Your task to perform on an android device: Clear the cart on target. Search for "logitech g pro" on target, select the first entry, add it to the cart, then select checkout. Image 0: 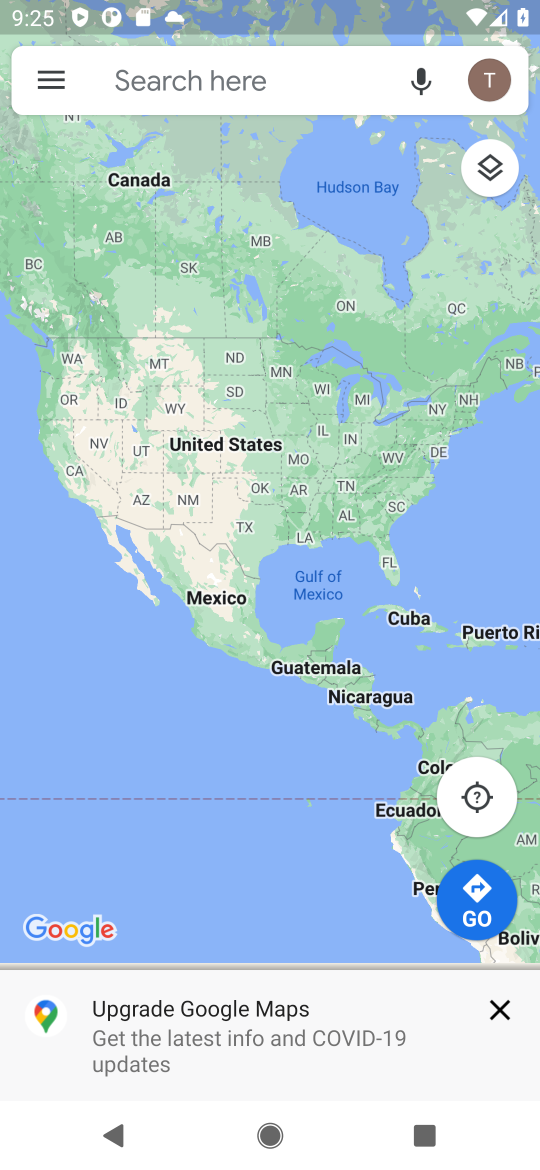
Step 0: press home button
Your task to perform on an android device: Clear the cart on target. Search for "logitech g pro" on target, select the first entry, add it to the cart, then select checkout. Image 1: 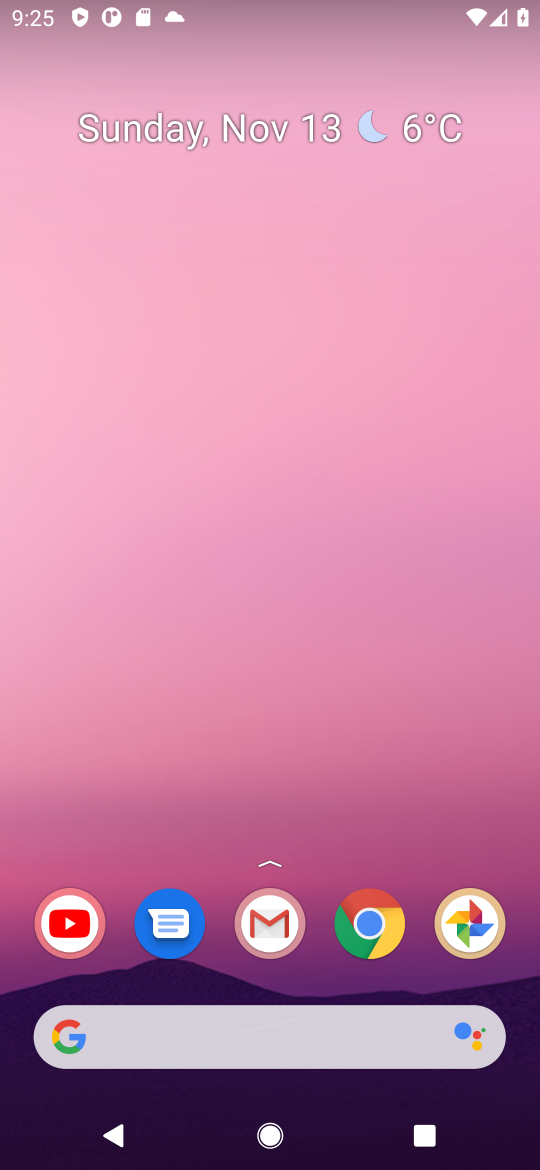
Step 1: click (363, 917)
Your task to perform on an android device: Clear the cart on target. Search for "logitech g pro" on target, select the first entry, add it to the cart, then select checkout. Image 2: 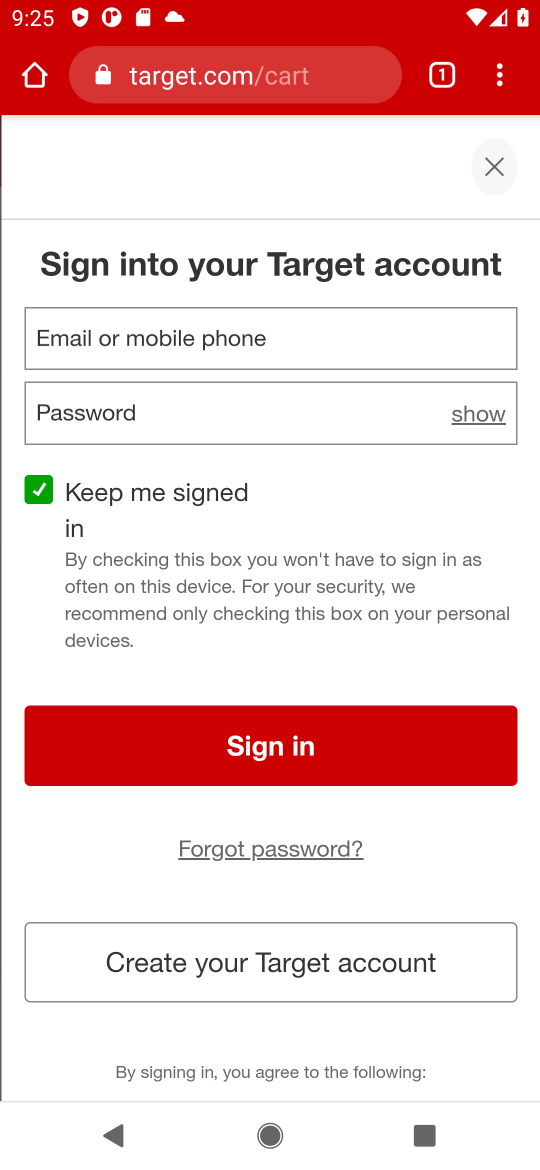
Step 2: click (497, 178)
Your task to perform on an android device: Clear the cart on target. Search for "logitech g pro" on target, select the first entry, add it to the cart, then select checkout. Image 3: 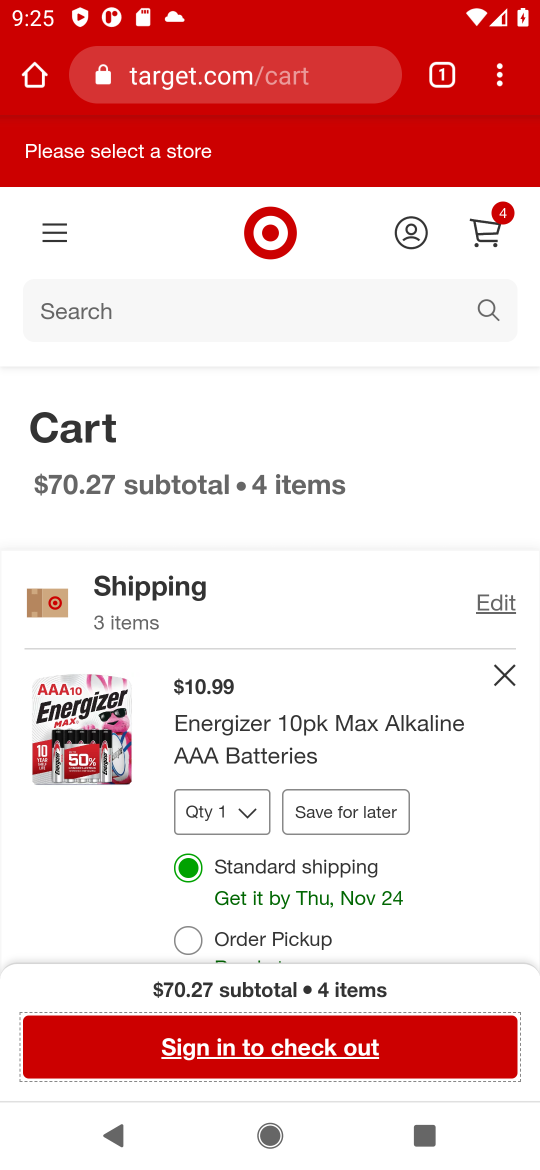
Step 3: click (488, 239)
Your task to perform on an android device: Clear the cart on target. Search for "logitech g pro" on target, select the first entry, add it to the cart, then select checkout. Image 4: 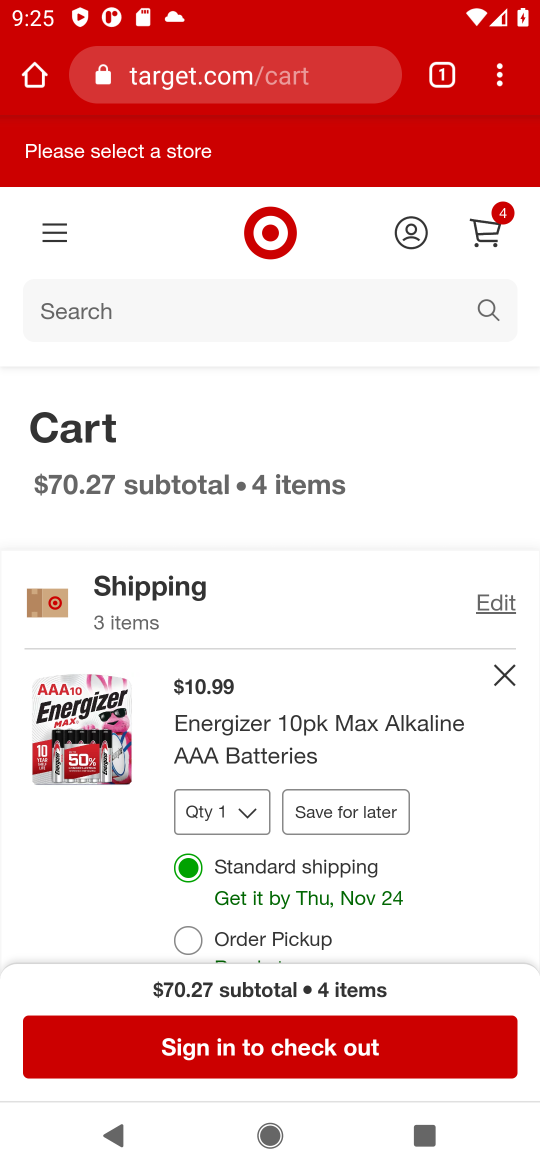
Step 4: drag from (489, 820) to (465, 244)
Your task to perform on an android device: Clear the cart on target. Search for "logitech g pro" on target, select the first entry, add it to the cart, then select checkout. Image 5: 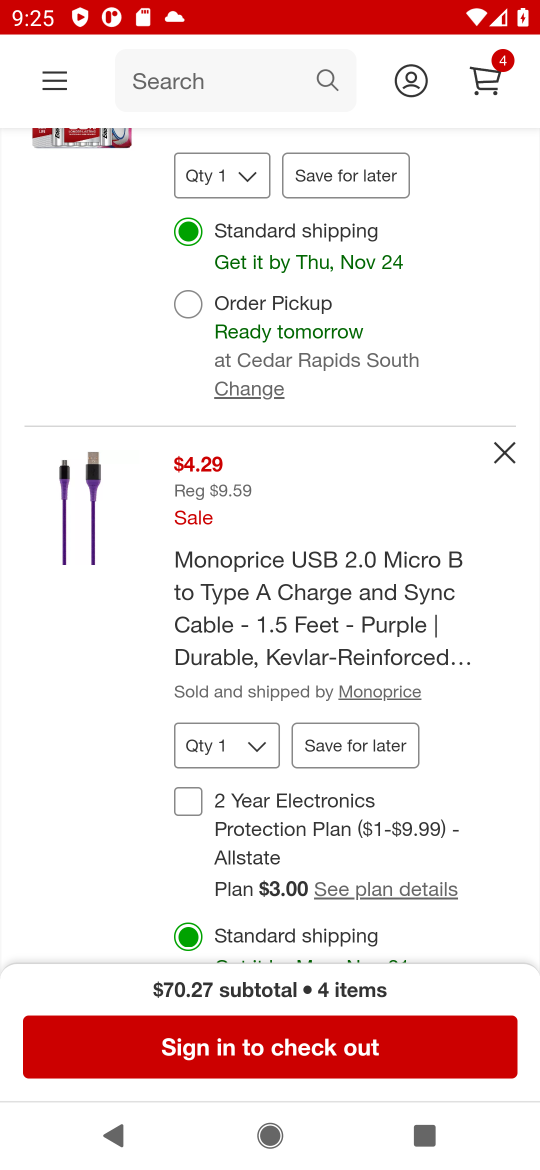
Step 5: click (501, 451)
Your task to perform on an android device: Clear the cart on target. Search for "logitech g pro" on target, select the first entry, add it to the cart, then select checkout. Image 6: 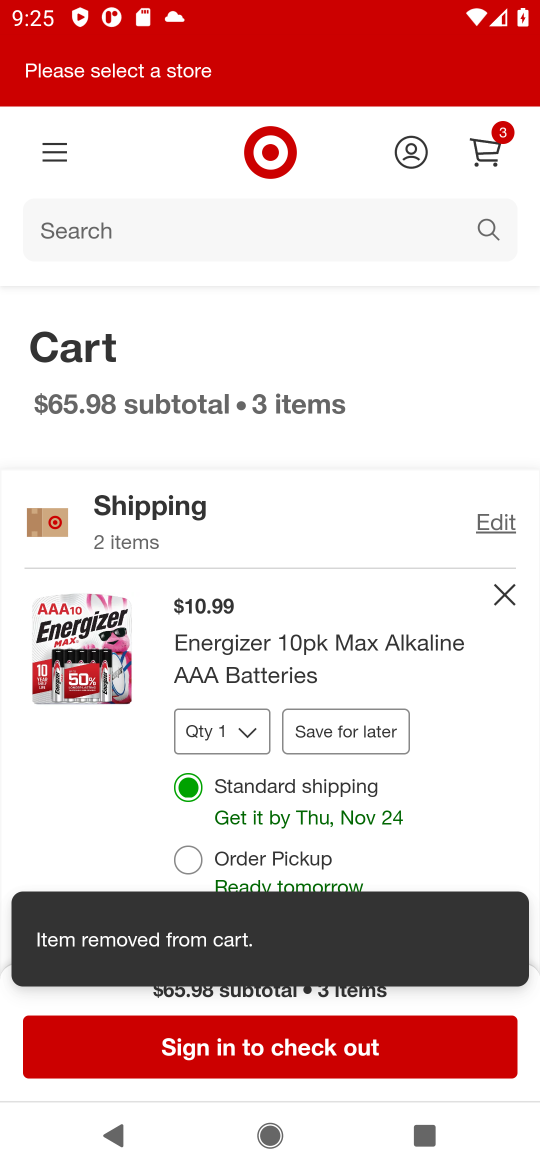
Step 6: click (507, 594)
Your task to perform on an android device: Clear the cart on target. Search for "logitech g pro" on target, select the first entry, add it to the cart, then select checkout. Image 7: 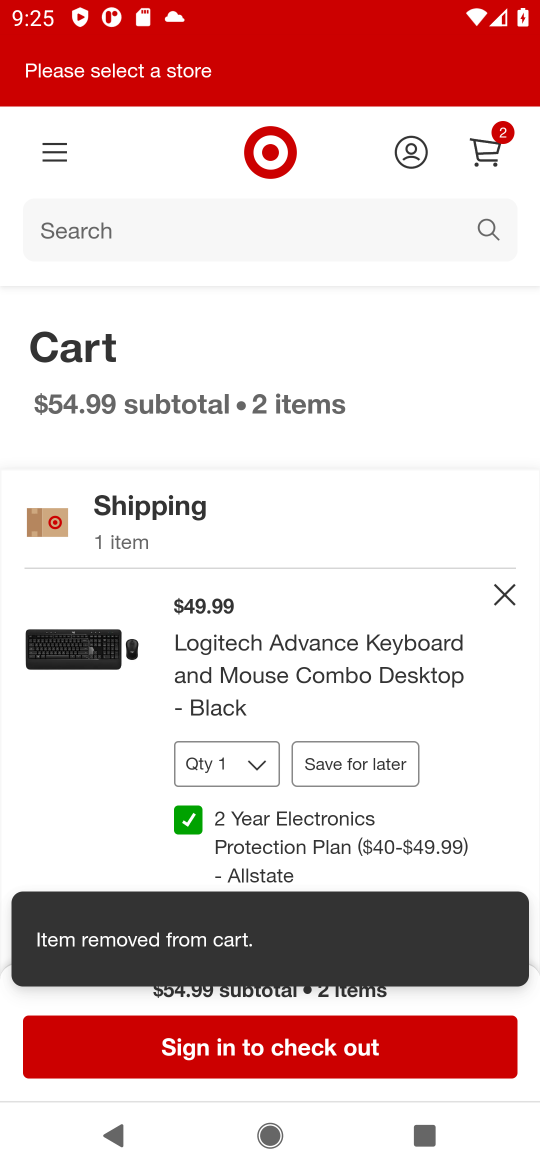
Step 7: click (507, 594)
Your task to perform on an android device: Clear the cart on target. Search for "logitech g pro" on target, select the first entry, add it to the cart, then select checkout. Image 8: 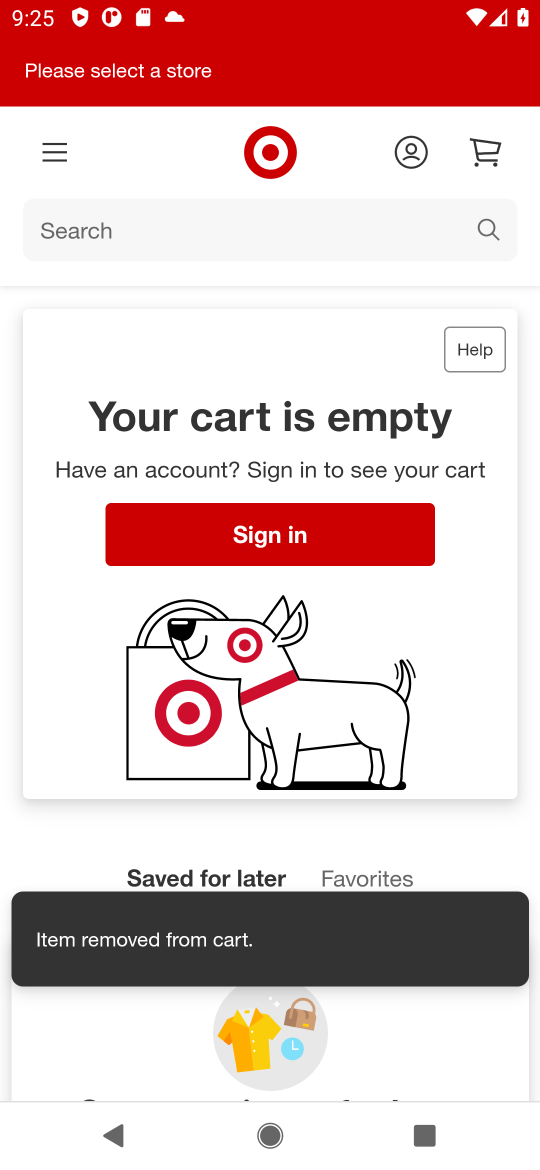
Step 8: click (488, 225)
Your task to perform on an android device: Clear the cart on target. Search for "logitech g pro" on target, select the first entry, add it to the cart, then select checkout. Image 9: 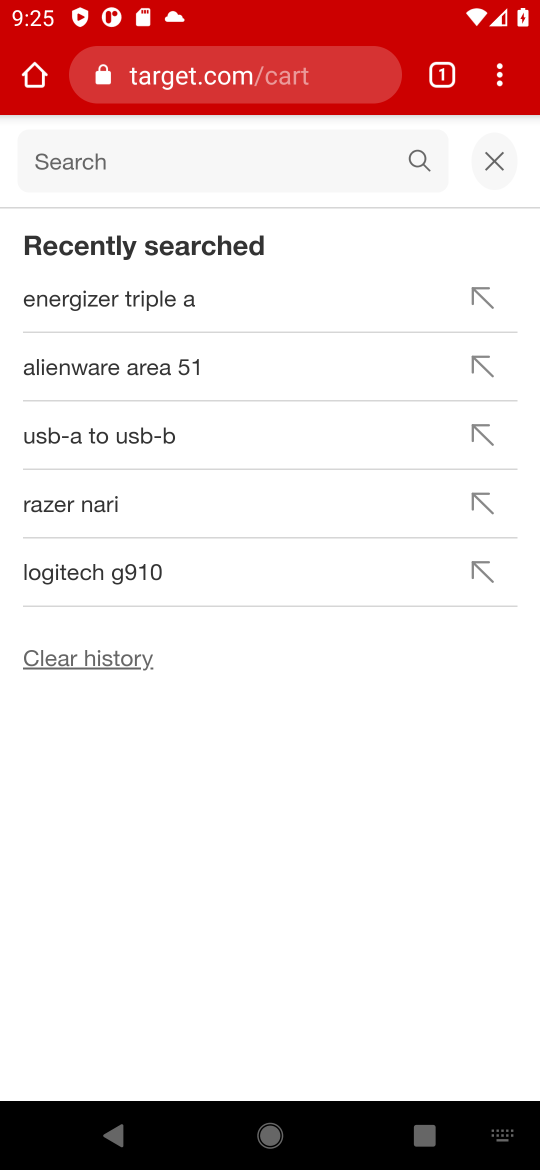
Step 9: type "logitech g pro"
Your task to perform on an android device: Clear the cart on target. Search for "logitech g pro" on target, select the first entry, add it to the cart, then select checkout. Image 10: 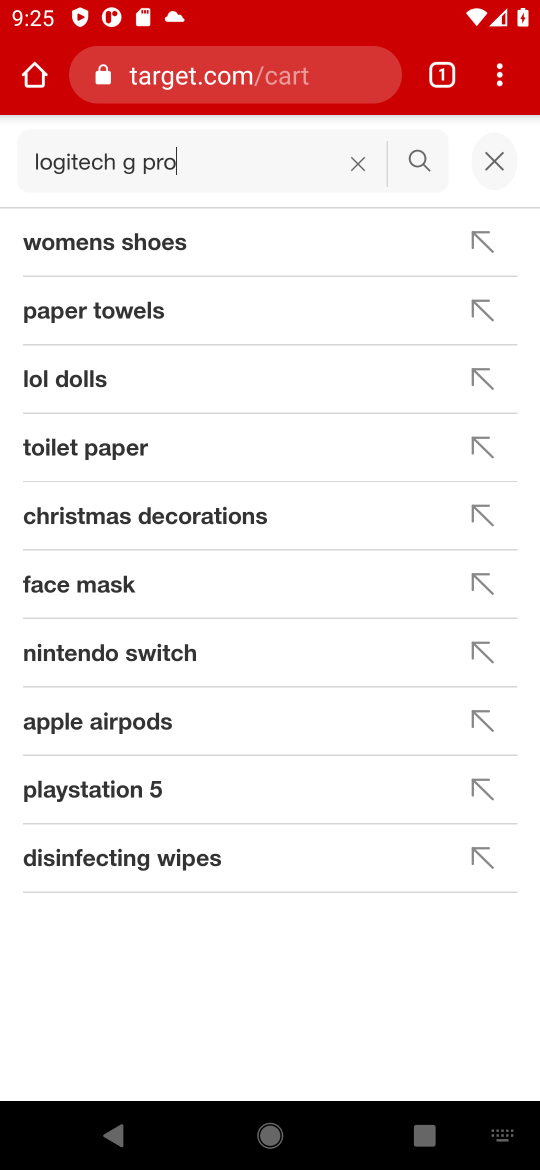
Step 10: press enter
Your task to perform on an android device: Clear the cart on target. Search for "logitech g pro" on target, select the first entry, add it to the cart, then select checkout. Image 11: 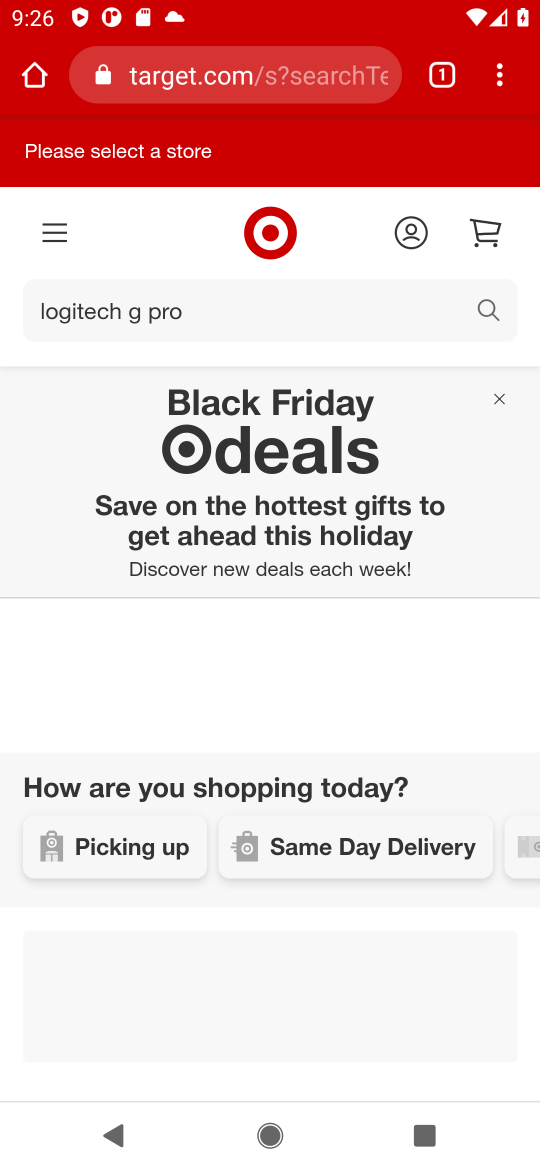
Step 11: task complete